Your task to perform on an android device: What is the recent news? Image 0: 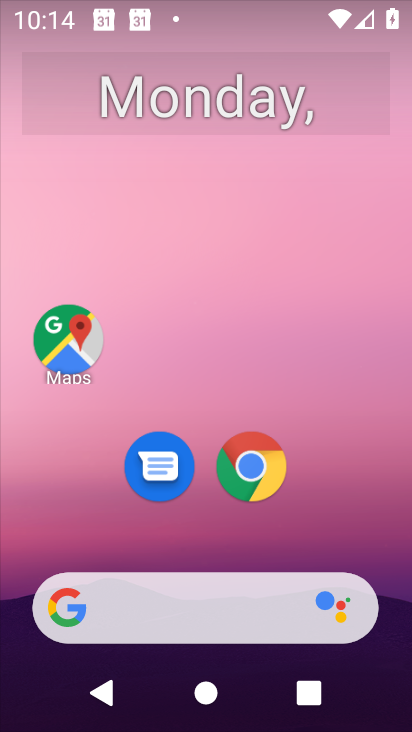
Step 0: drag from (11, 233) to (406, 443)
Your task to perform on an android device: What is the recent news? Image 1: 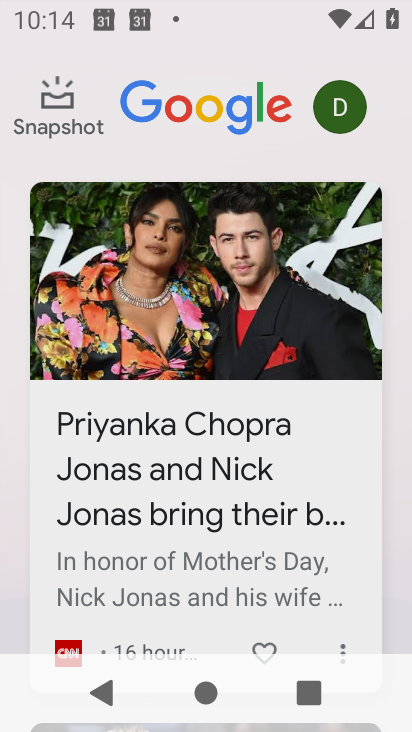
Step 1: task complete